Your task to perform on an android device: open device folders in google photos Image 0: 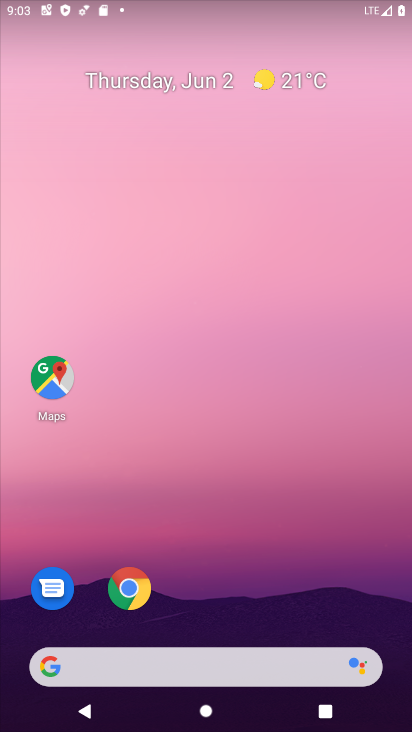
Step 0: click (244, 666)
Your task to perform on an android device: open device folders in google photos Image 1: 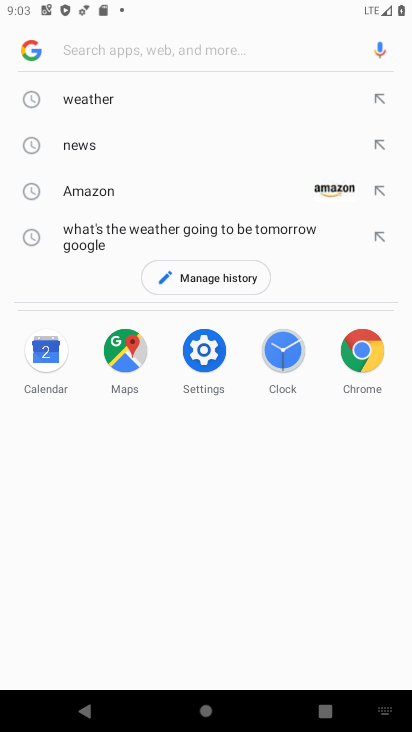
Step 1: press home button
Your task to perform on an android device: open device folders in google photos Image 2: 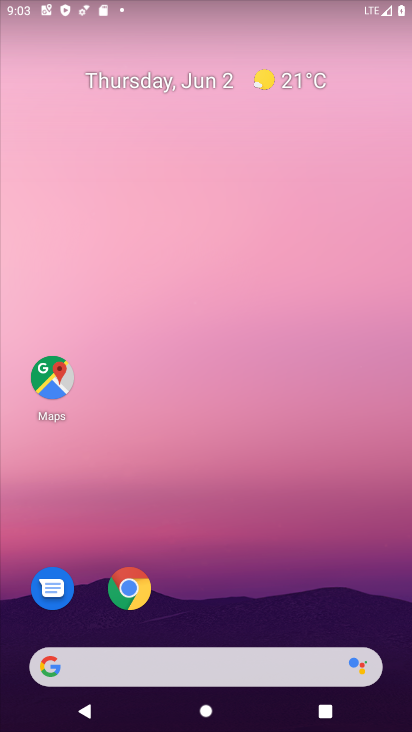
Step 2: drag from (264, 582) to (263, 391)
Your task to perform on an android device: open device folders in google photos Image 3: 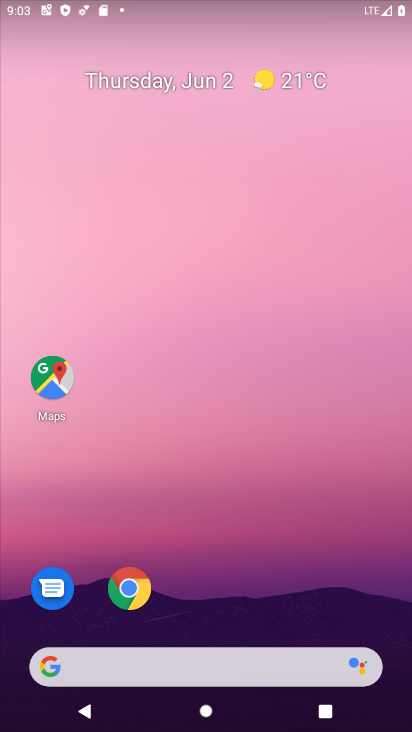
Step 3: drag from (220, 566) to (388, 68)
Your task to perform on an android device: open device folders in google photos Image 4: 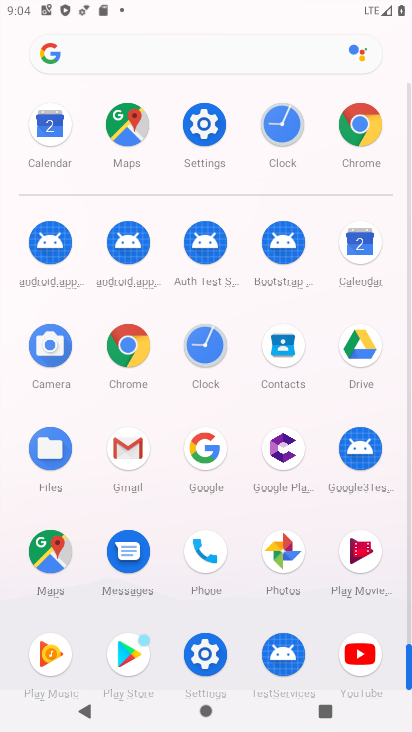
Step 4: click (295, 553)
Your task to perform on an android device: open device folders in google photos Image 5: 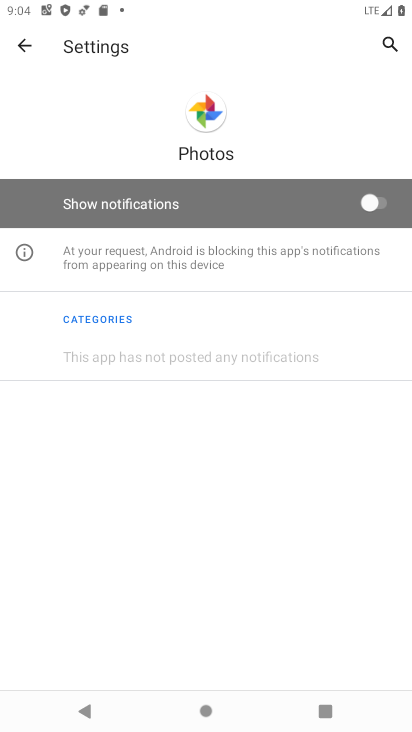
Step 5: click (29, 37)
Your task to perform on an android device: open device folders in google photos Image 6: 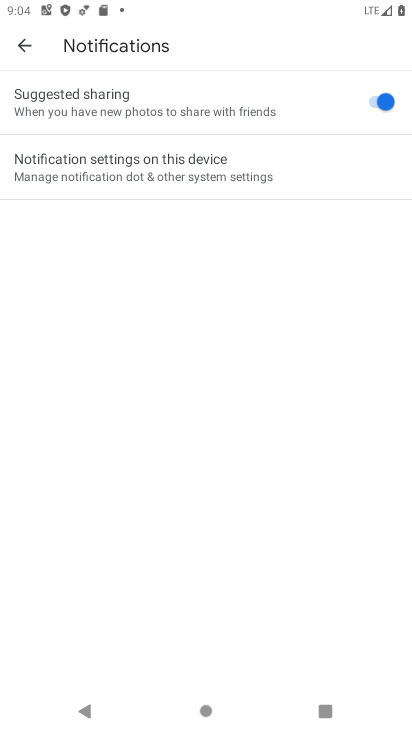
Step 6: click (37, 38)
Your task to perform on an android device: open device folders in google photos Image 7: 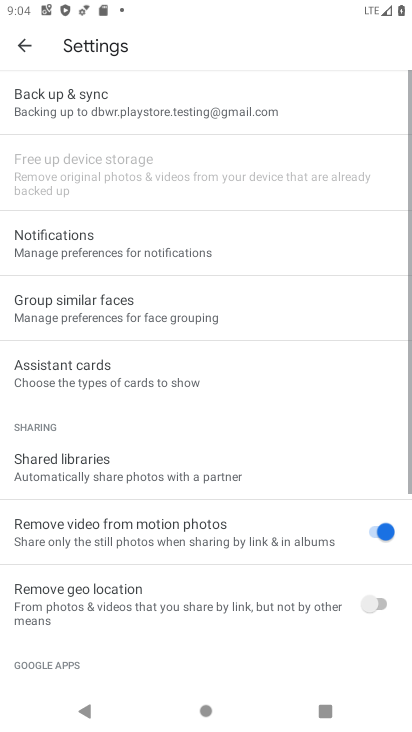
Step 7: click (32, 42)
Your task to perform on an android device: open device folders in google photos Image 8: 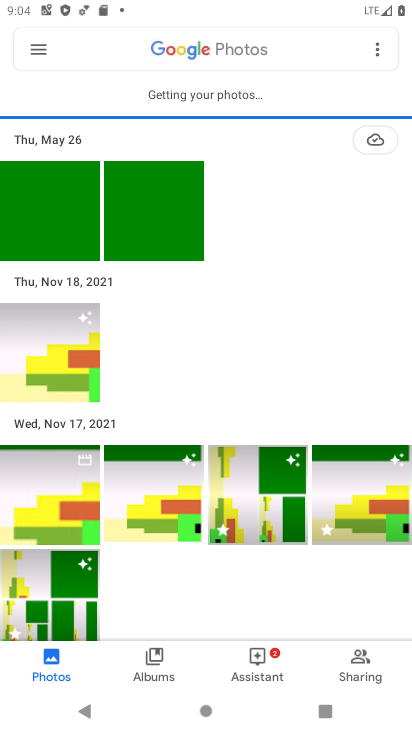
Step 8: click (34, 42)
Your task to perform on an android device: open device folders in google photos Image 9: 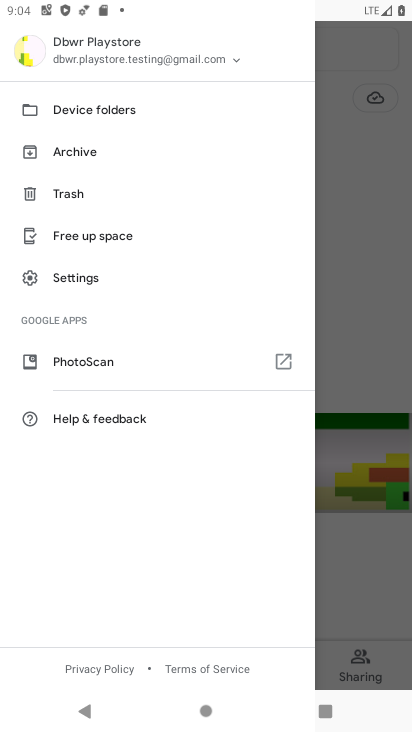
Step 9: click (116, 109)
Your task to perform on an android device: open device folders in google photos Image 10: 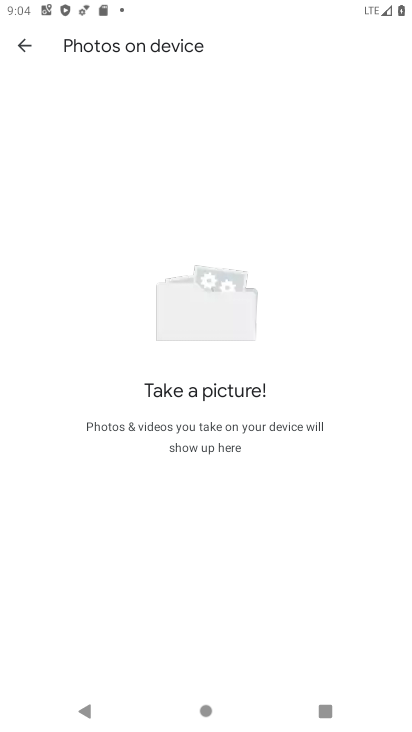
Step 10: task complete